Your task to perform on an android device: Is it going to rain today? Image 0: 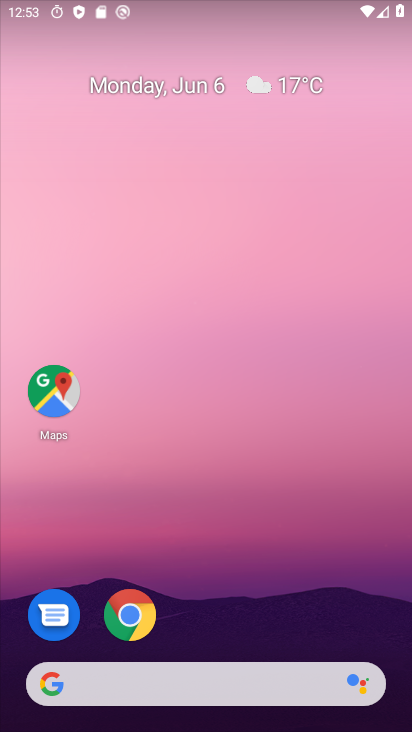
Step 0: drag from (174, 640) to (24, 587)
Your task to perform on an android device: Is it going to rain today? Image 1: 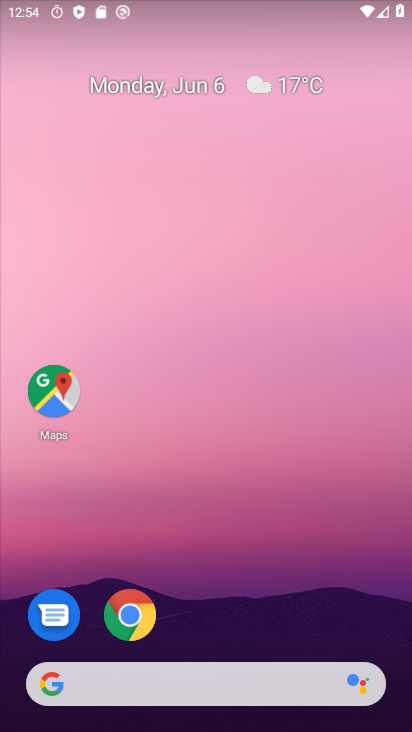
Step 1: drag from (180, 598) to (198, 272)
Your task to perform on an android device: Is it going to rain today? Image 2: 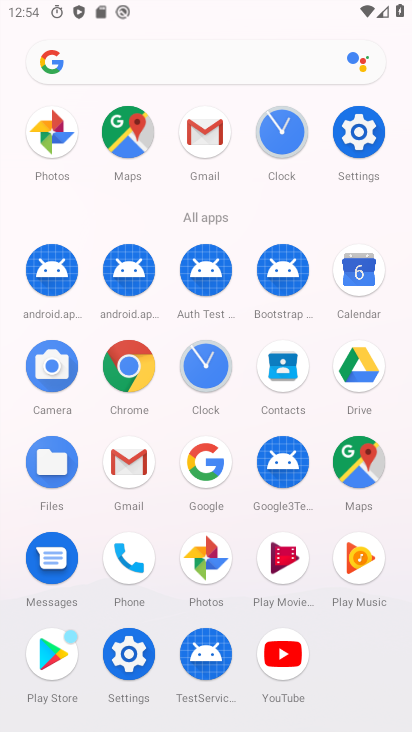
Step 2: click (151, 62)
Your task to perform on an android device: Is it going to rain today? Image 3: 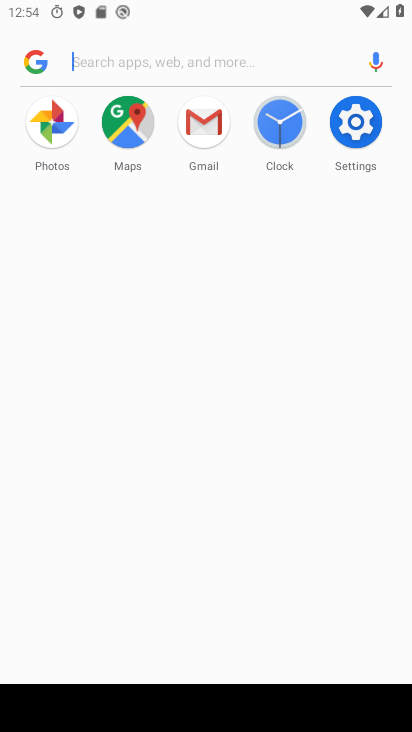
Step 3: type "rain today"
Your task to perform on an android device: Is it going to rain today? Image 4: 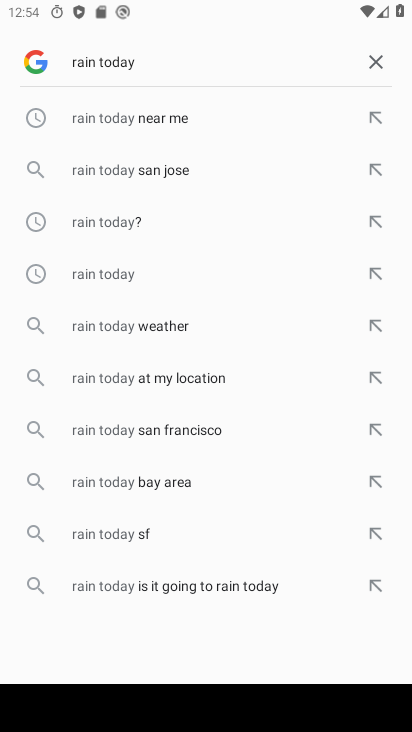
Step 4: click (70, 232)
Your task to perform on an android device: Is it going to rain today? Image 5: 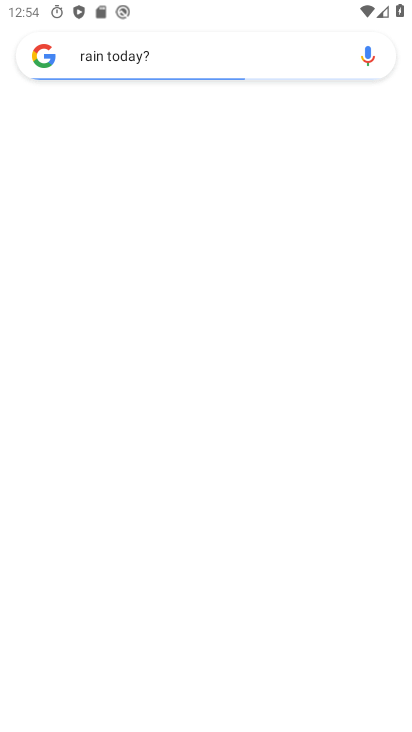
Step 5: task complete